Your task to perform on an android device: Open Android settings Image 0: 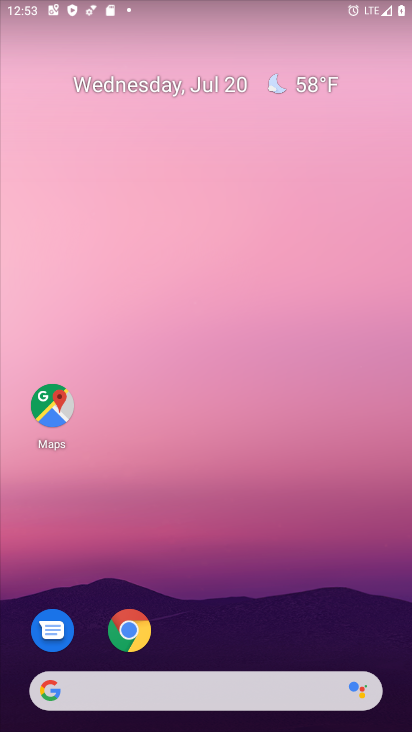
Step 0: drag from (199, 451) to (157, 114)
Your task to perform on an android device: Open Android settings Image 1: 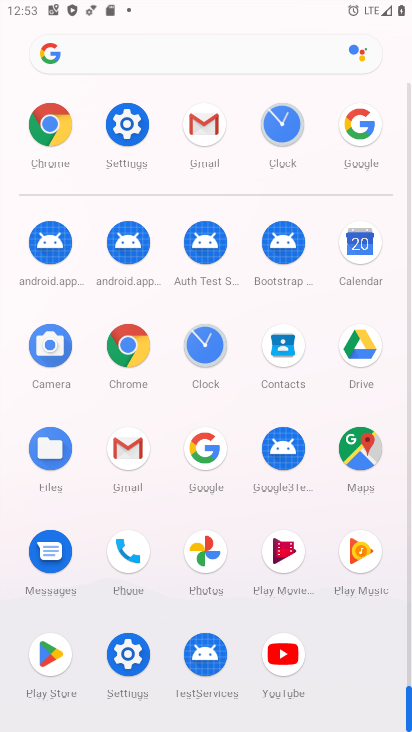
Step 1: click (139, 136)
Your task to perform on an android device: Open Android settings Image 2: 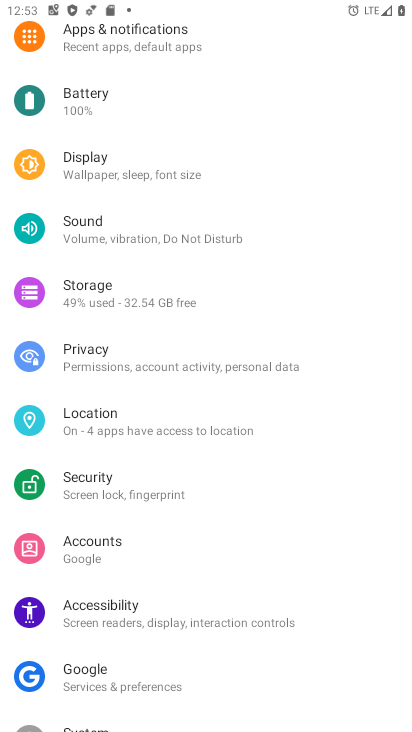
Step 2: drag from (176, 365) to (176, 684)
Your task to perform on an android device: Open Android settings Image 3: 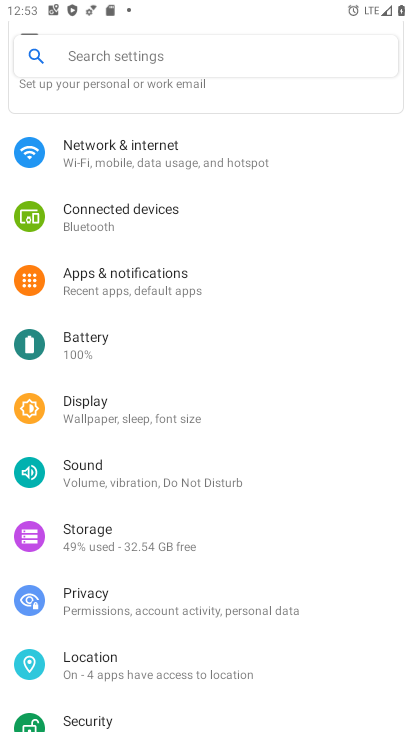
Step 3: drag from (235, 395) to (195, 632)
Your task to perform on an android device: Open Android settings Image 4: 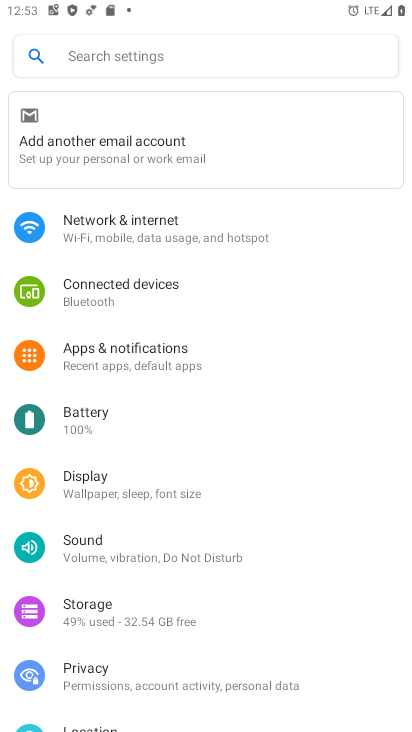
Step 4: drag from (199, 586) to (198, 87)
Your task to perform on an android device: Open Android settings Image 5: 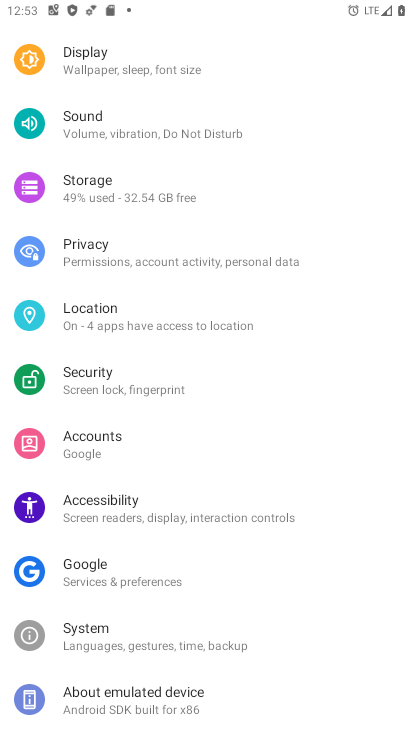
Step 5: drag from (159, 557) to (161, 74)
Your task to perform on an android device: Open Android settings Image 6: 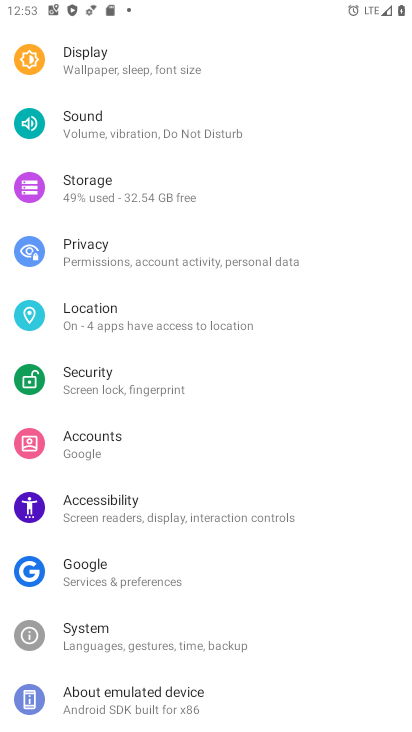
Step 6: click (189, 706)
Your task to perform on an android device: Open Android settings Image 7: 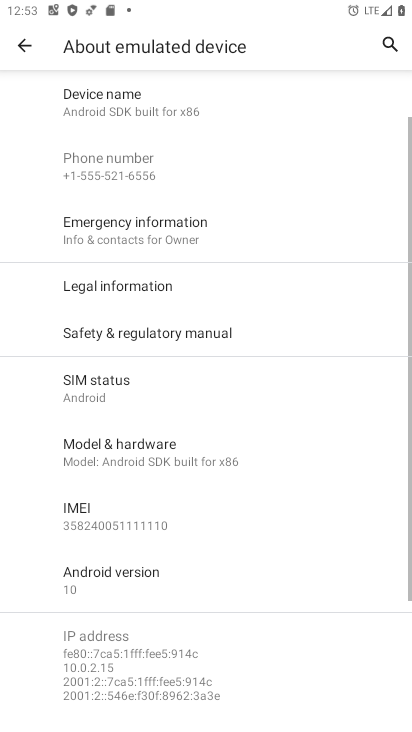
Step 7: click (206, 602)
Your task to perform on an android device: Open Android settings Image 8: 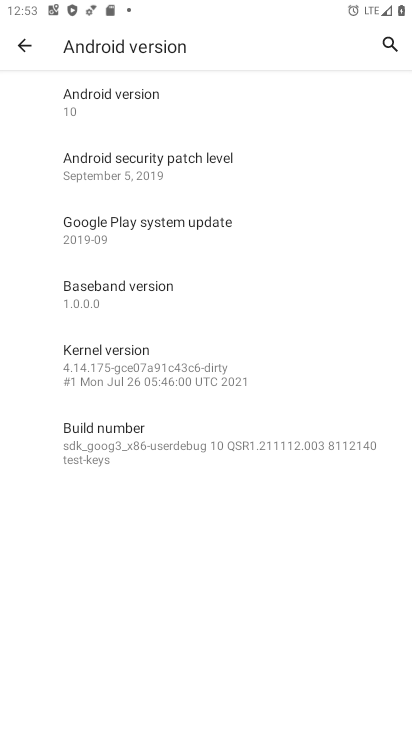
Step 8: task complete